Your task to perform on an android device: check storage Image 0: 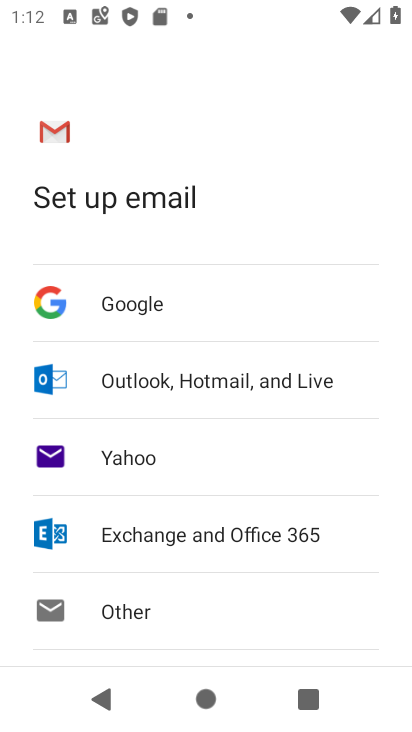
Step 0: press home button
Your task to perform on an android device: check storage Image 1: 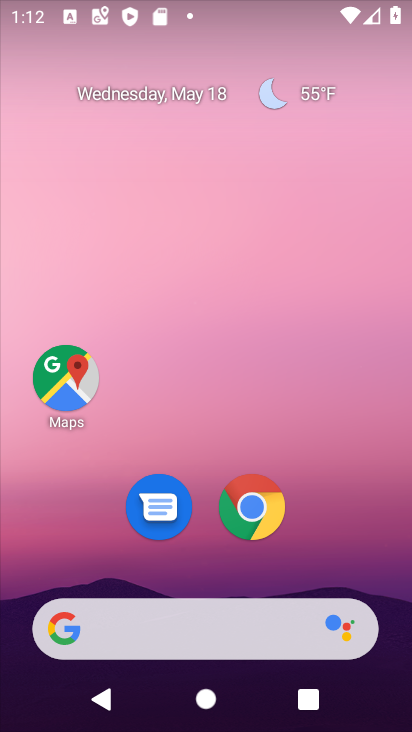
Step 1: click (254, 506)
Your task to perform on an android device: check storage Image 2: 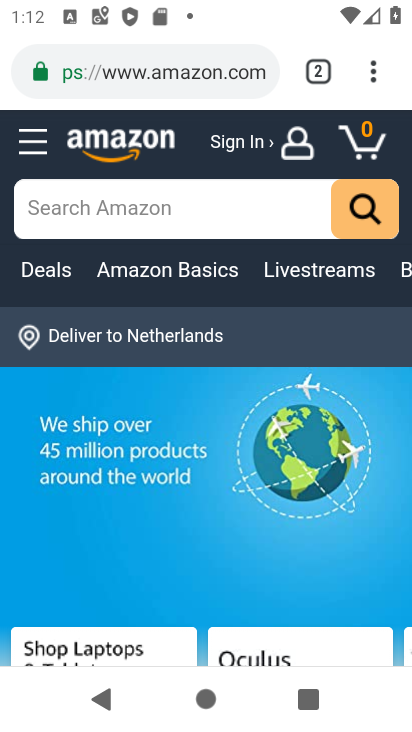
Step 2: press home button
Your task to perform on an android device: check storage Image 3: 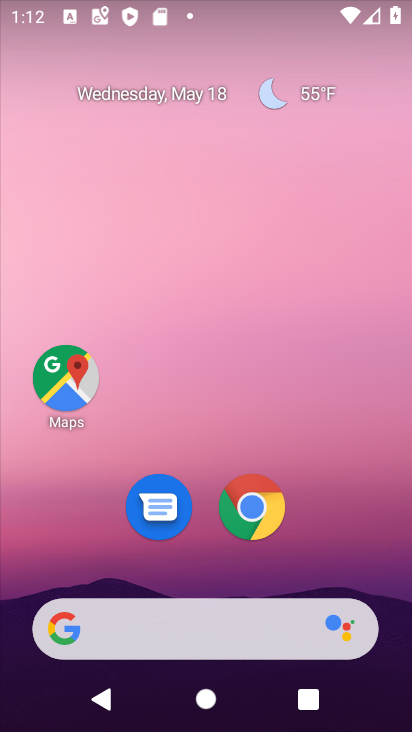
Step 3: drag from (400, 606) to (299, 110)
Your task to perform on an android device: check storage Image 4: 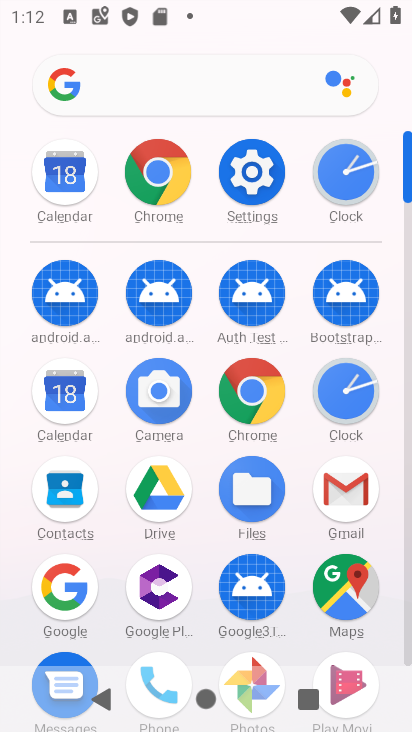
Step 4: click (409, 656)
Your task to perform on an android device: check storage Image 5: 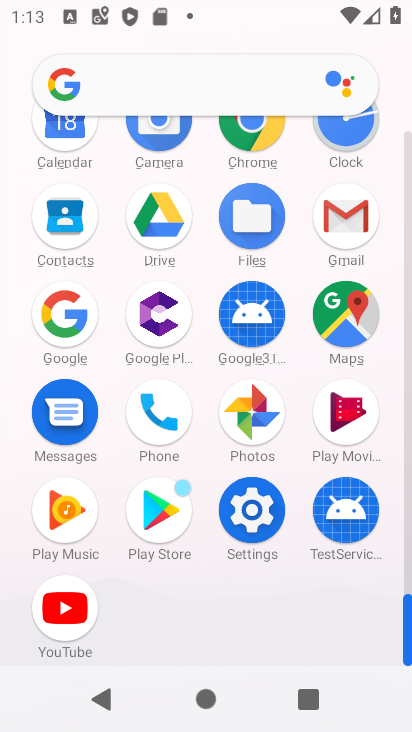
Step 5: click (250, 510)
Your task to perform on an android device: check storage Image 6: 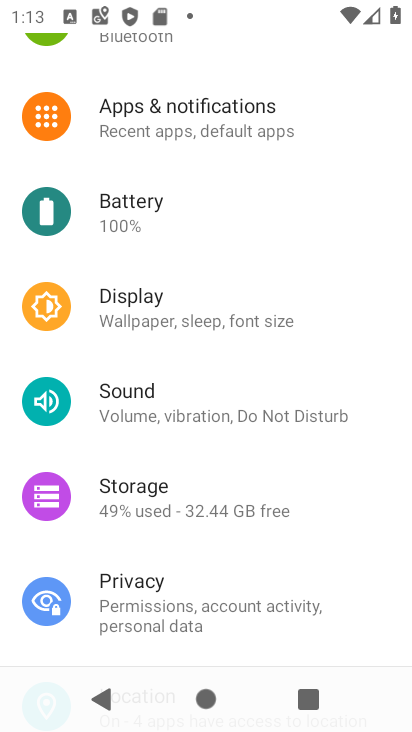
Step 6: drag from (276, 617) to (267, 522)
Your task to perform on an android device: check storage Image 7: 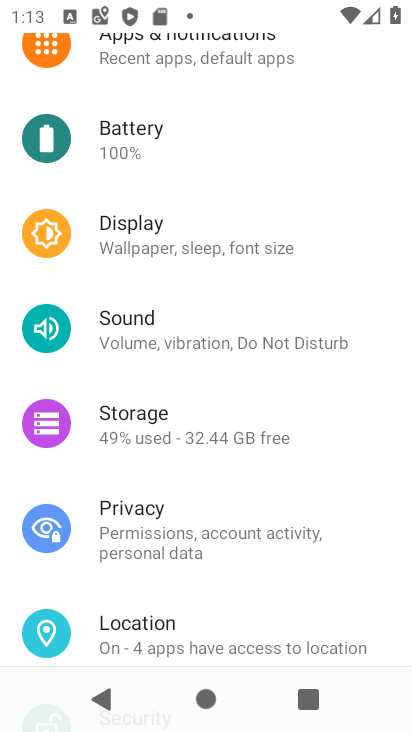
Step 7: click (148, 413)
Your task to perform on an android device: check storage Image 8: 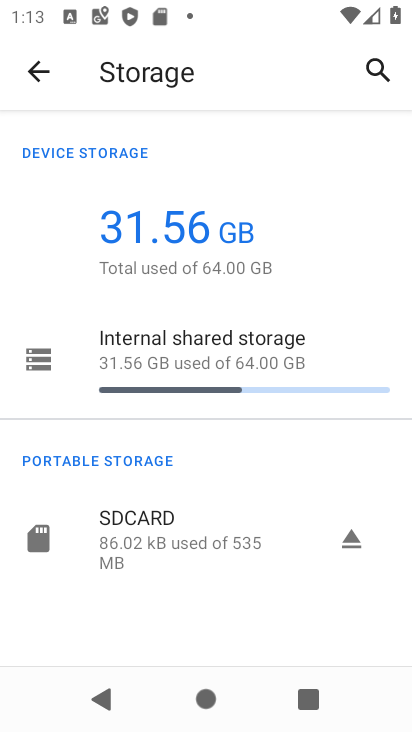
Step 8: task complete